Your task to perform on an android device: find snoozed emails in the gmail app Image 0: 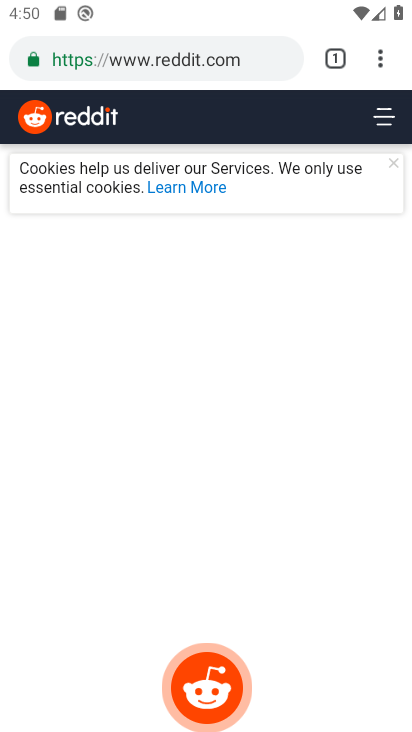
Step 0: press home button
Your task to perform on an android device: find snoozed emails in the gmail app Image 1: 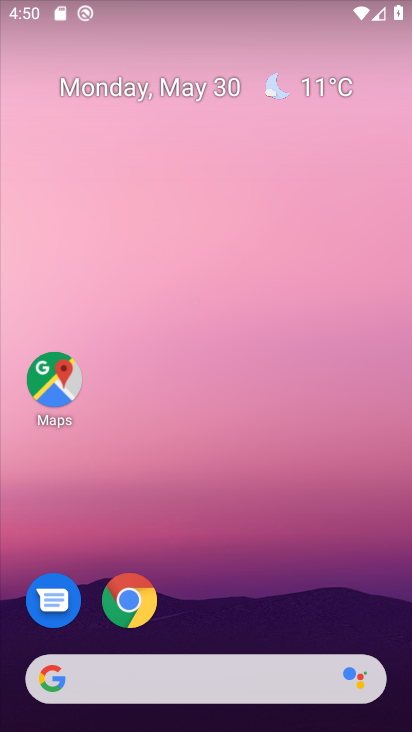
Step 1: drag from (303, 262) to (349, 43)
Your task to perform on an android device: find snoozed emails in the gmail app Image 2: 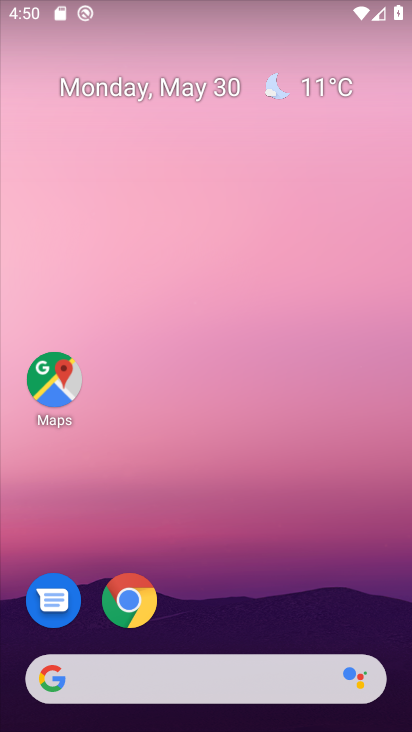
Step 2: drag from (214, 552) to (375, 324)
Your task to perform on an android device: find snoozed emails in the gmail app Image 3: 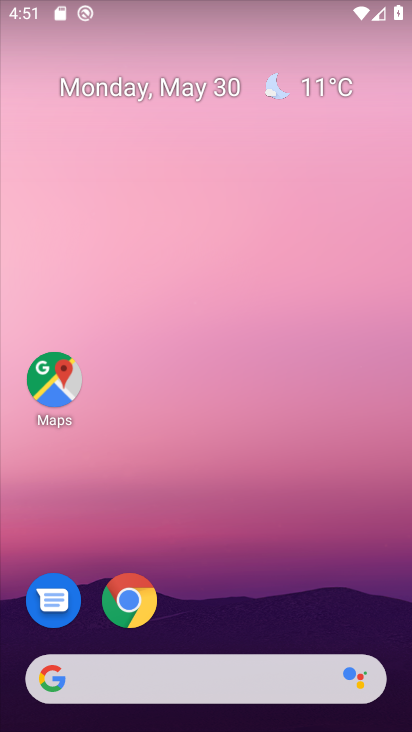
Step 3: drag from (270, 522) to (372, 100)
Your task to perform on an android device: find snoozed emails in the gmail app Image 4: 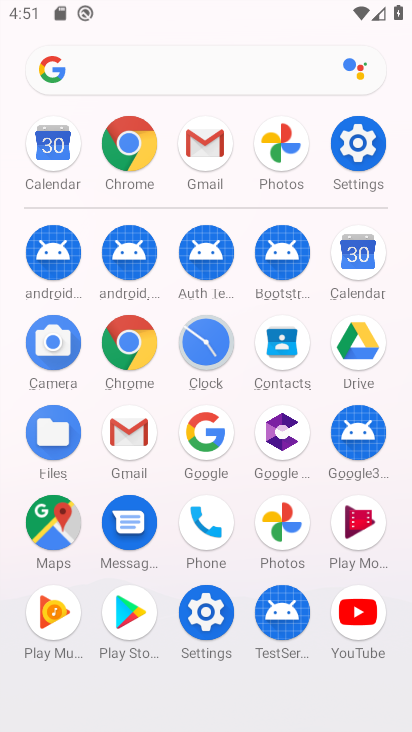
Step 4: click (207, 152)
Your task to perform on an android device: find snoozed emails in the gmail app Image 5: 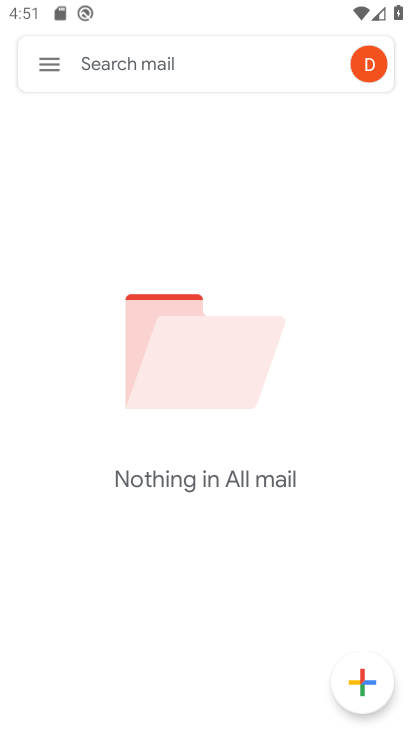
Step 5: click (50, 68)
Your task to perform on an android device: find snoozed emails in the gmail app Image 6: 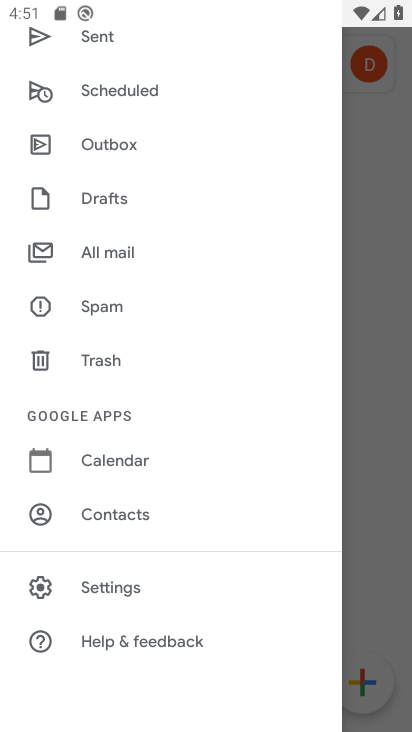
Step 6: drag from (101, 306) to (22, 525)
Your task to perform on an android device: find snoozed emails in the gmail app Image 7: 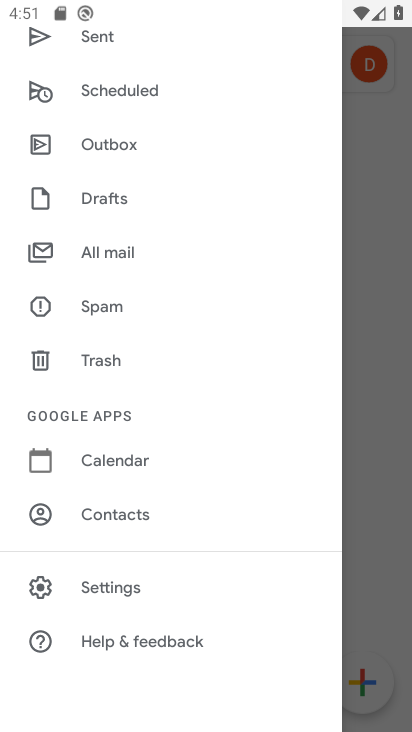
Step 7: drag from (170, 198) to (82, 474)
Your task to perform on an android device: find snoozed emails in the gmail app Image 8: 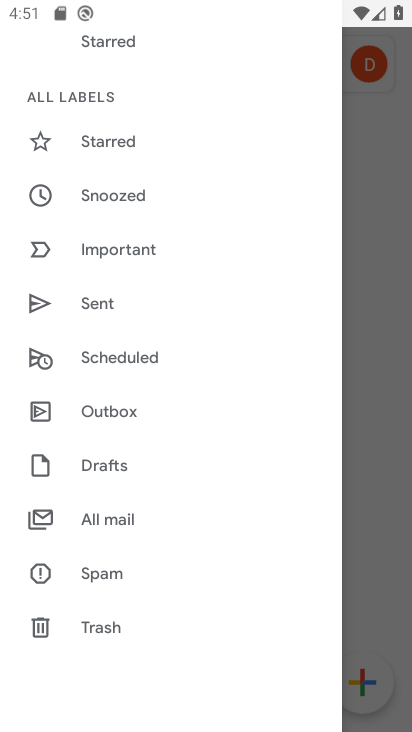
Step 8: click (136, 209)
Your task to perform on an android device: find snoozed emails in the gmail app Image 9: 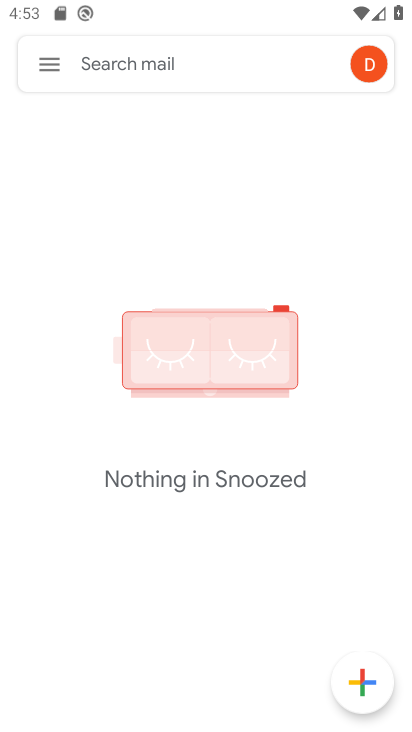
Step 9: task complete